Your task to perform on an android device: Search for vegetarian restaurants on Maps Image 0: 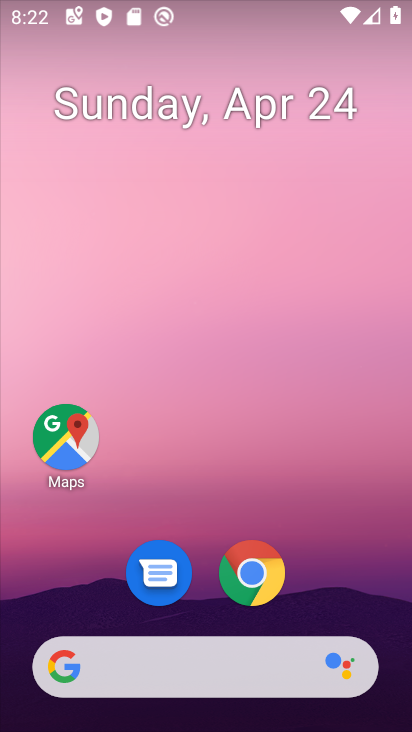
Step 0: click (69, 442)
Your task to perform on an android device: Search for vegetarian restaurants on Maps Image 1: 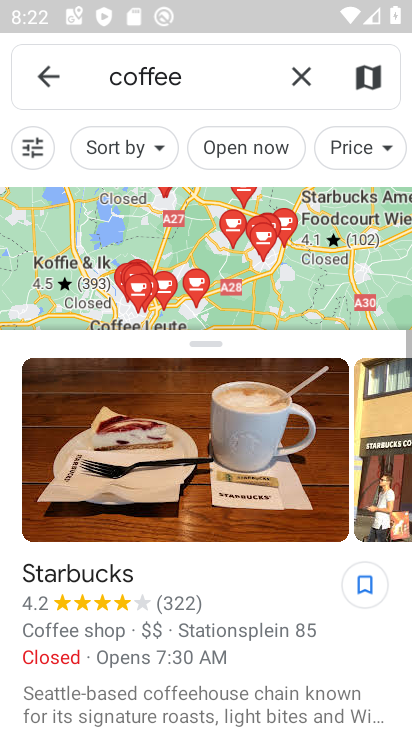
Step 1: click (305, 70)
Your task to perform on an android device: Search for vegetarian restaurants on Maps Image 2: 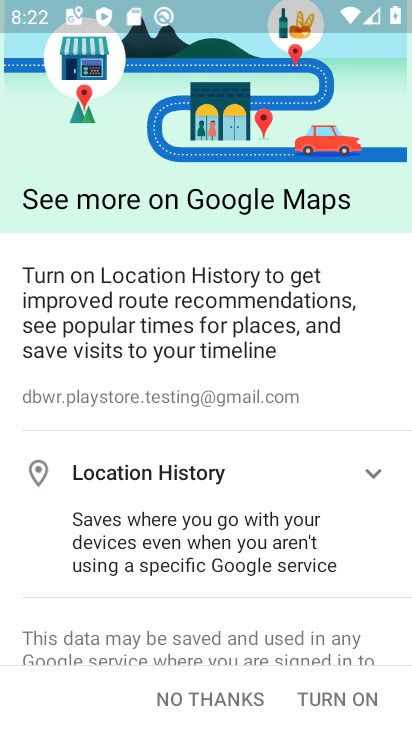
Step 2: press back button
Your task to perform on an android device: Search for vegetarian restaurants on Maps Image 3: 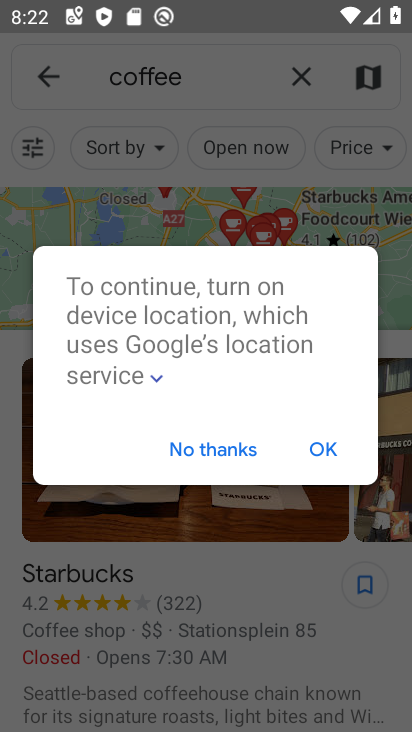
Step 3: click (214, 86)
Your task to perform on an android device: Search for vegetarian restaurants on Maps Image 4: 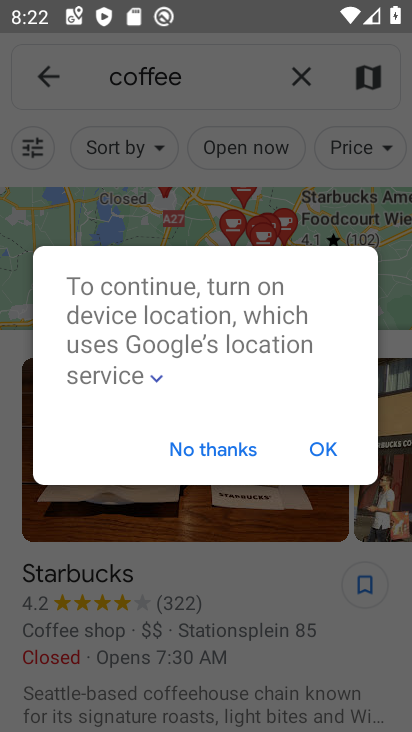
Step 4: click (258, 80)
Your task to perform on an android device: Search for vegetarian restaurants on Maps Image 5: 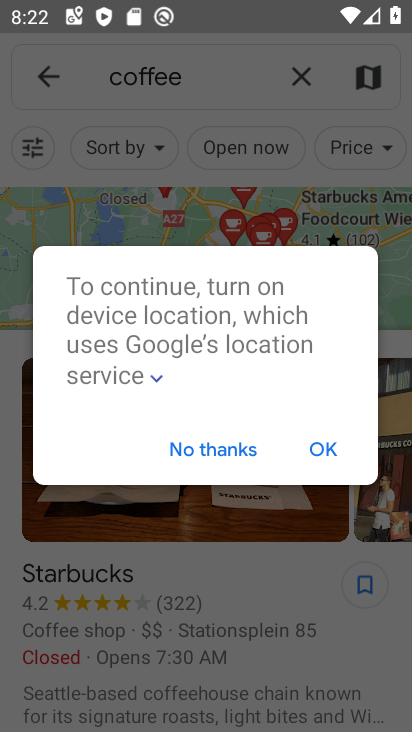
Step 5: click (293, 77)
Your task to perform on an android device: Search for vegetarian restaurants on Maps Image 6: 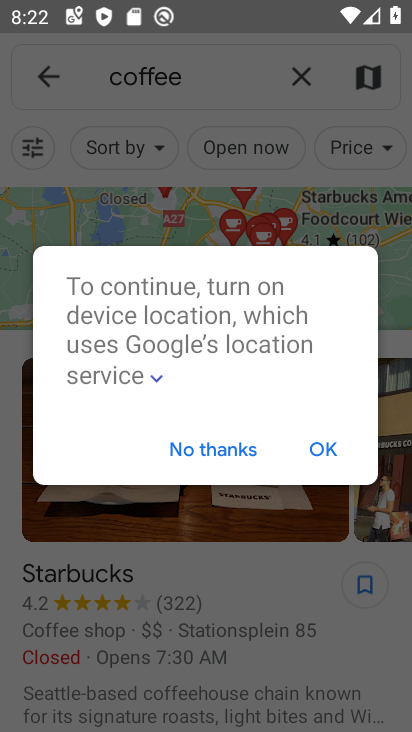
Step 6: press back button
Your task to perform on an android device: Search for vegetarian restaurants on Maps Image 7: 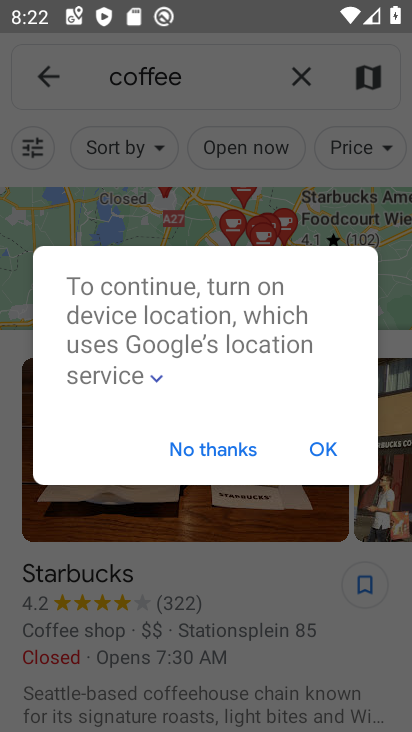
Step 7: click (211, 450)
Your task to perform on an android device: Search for vegetarian restaurants on Maps Image 8: 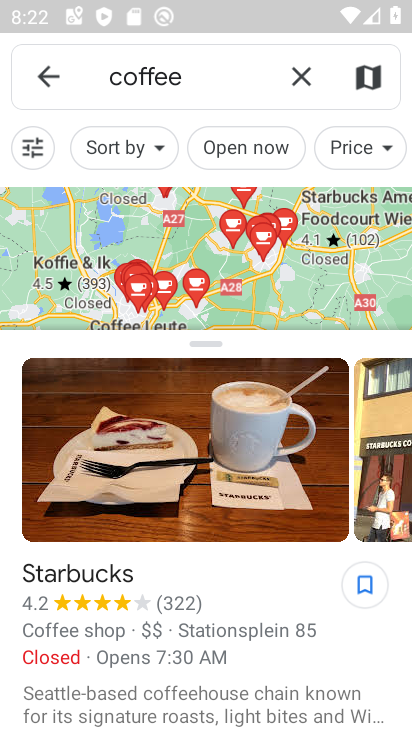
Step 8: click (301, 75)
Your task to perform on an android device: Search for vegetarian restaurants on Maps Image 9: 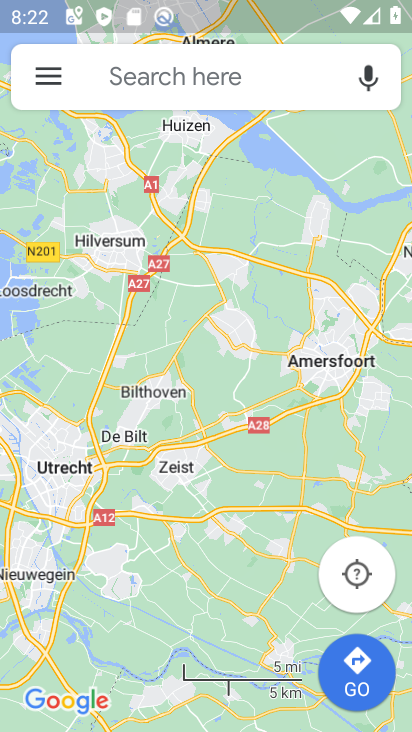
Step 9: click (249, 79)
Your task to perform on an android device: Search for vegetarian restaurants on Maps Image 10: 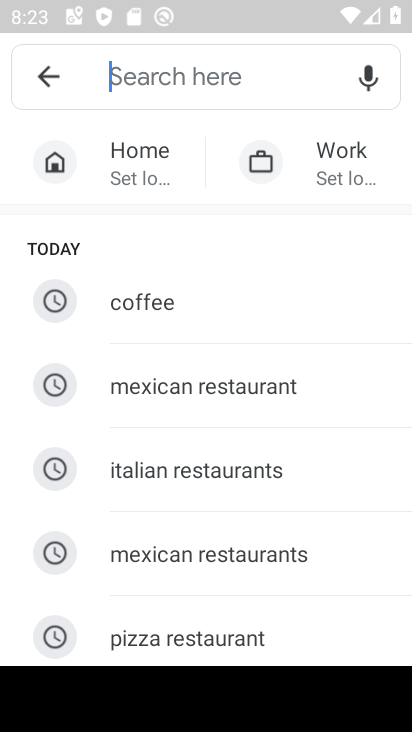
Step 10: drag from (323, 622) to (289, 261)
Your task to perform on an android device: Search for vegetarian restaurants on Maps Image 11: 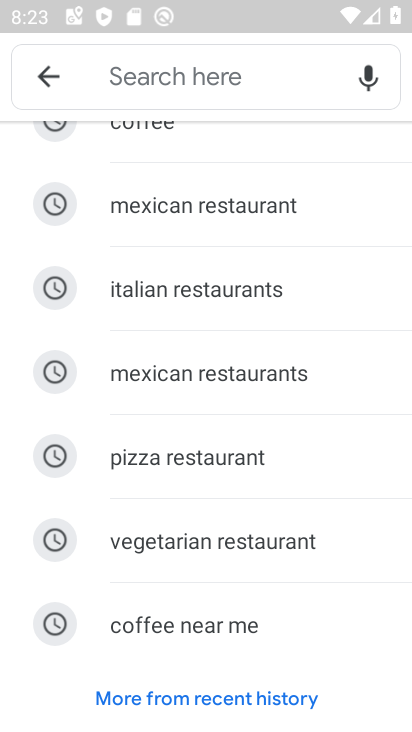
Step 11: click (214, 542)
Your task to perform on an android device: Search for vegetarian restaurants on Maps Image 12: 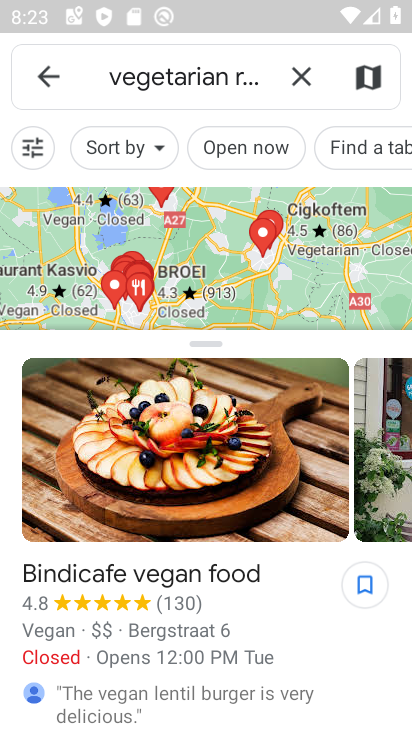
Step 12: task complete